Your task to perform on an android device: Go to Wikipedia Image 0: 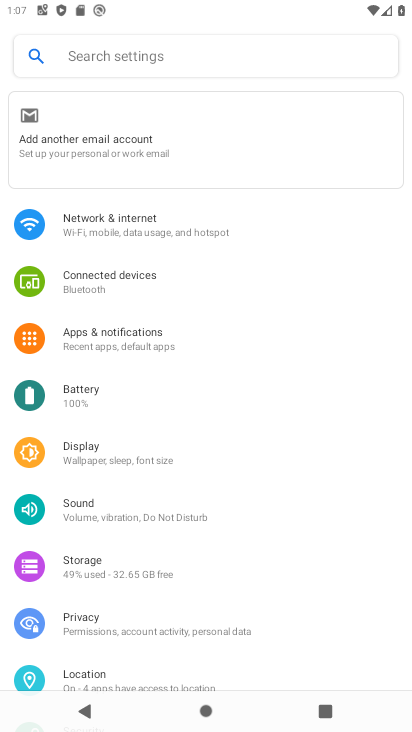
Step 0: press home button
Your task to perform on an android device: Go to Wikipedia Image 1: 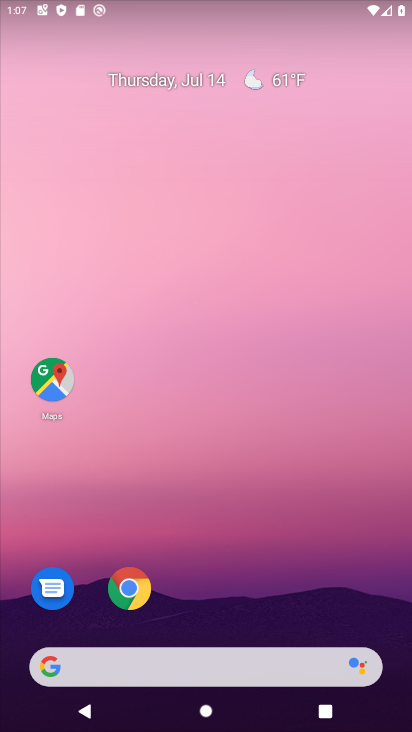
Step 1: click (130, 583)
Your task to perform on an android device: Go to Wikipedia Image 2: 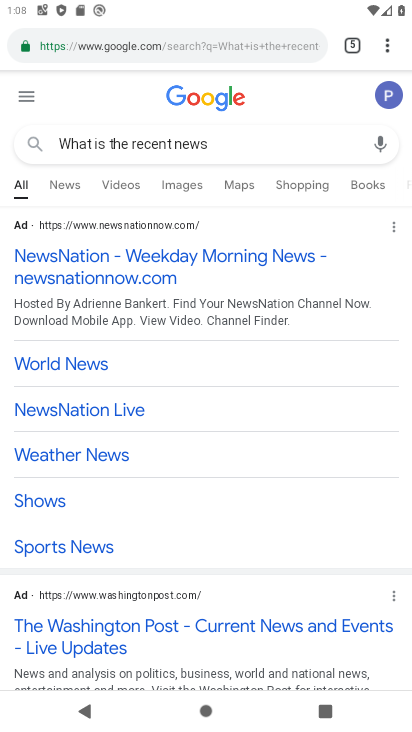
Step 2: click (390, 48)
Your task to perform on an android device: Go to Wikipedia Image 3: 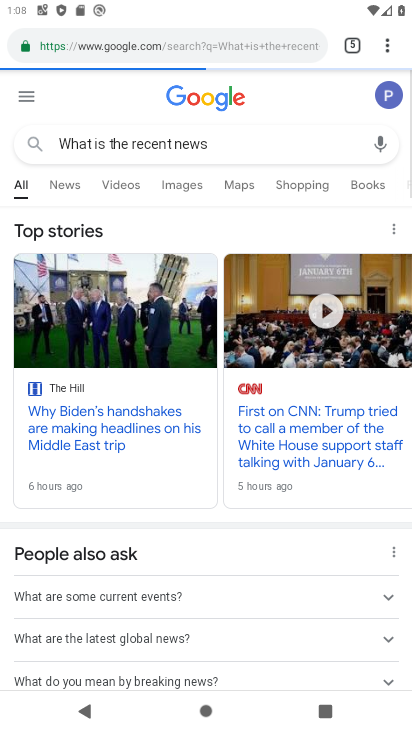
Step 3: click (382, 48)
Your task to perform on an android device: Go to Wikipedia Image 4: 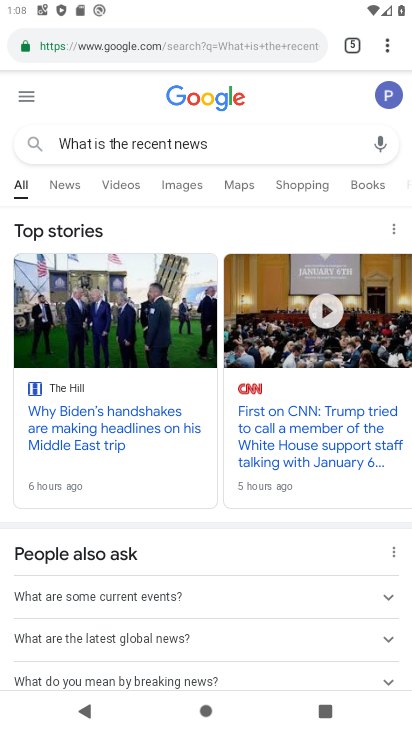
Step 4: click (390, 46)
Your task to perform on an android device: Go to Wikipedia Image 5: 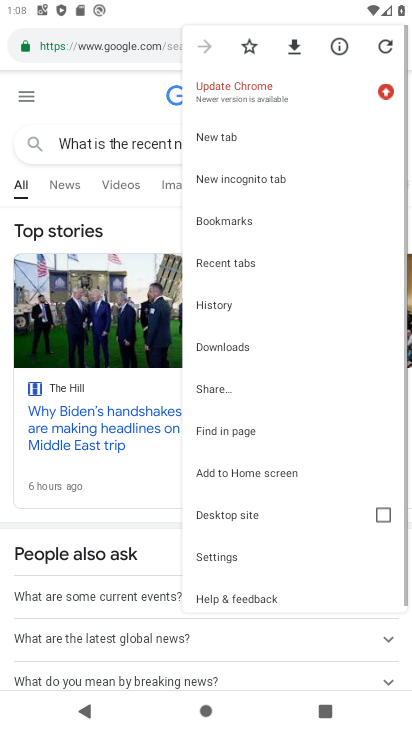
Step 5: click (225, 133)
Your task to perform on an android device: Go to Wikipedia Image 6: 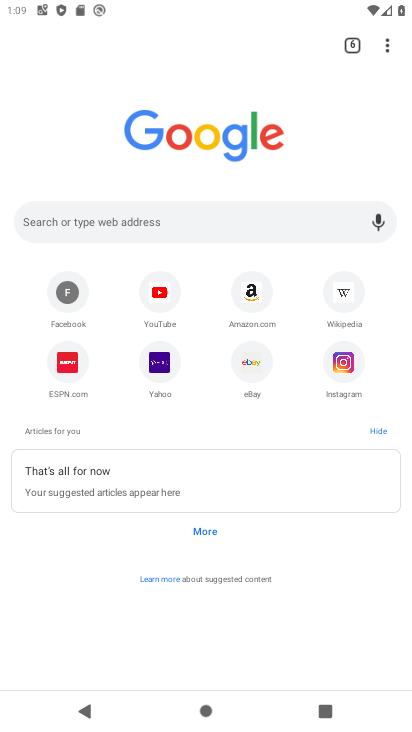
Step 6: click (342, 290)
Your task to perform on an android device: Go to Wikipedia Image 7: 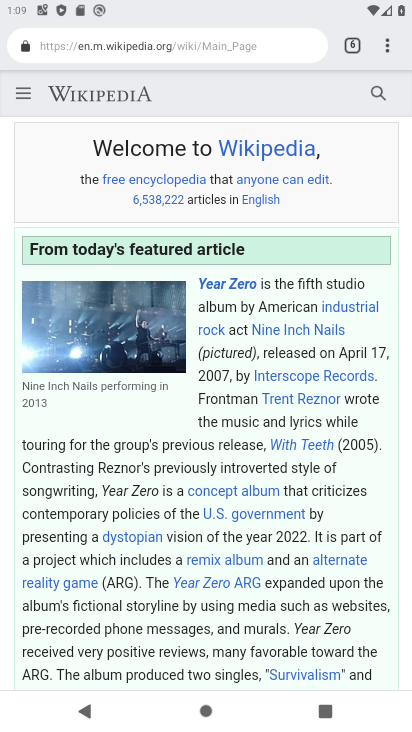
Step 7: task complete